Your task to perform on an android device: turn off location history Image 0: 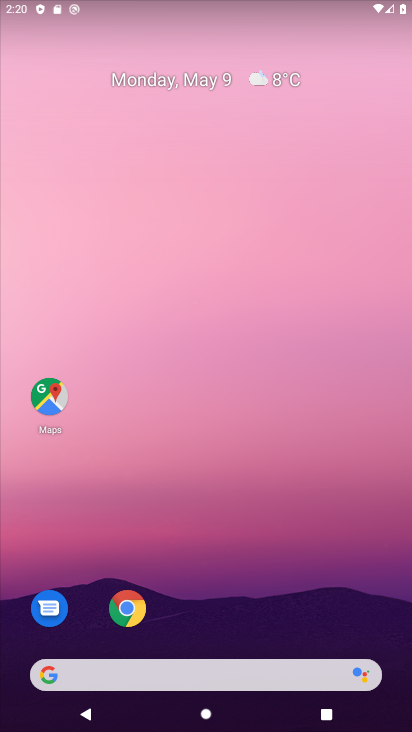
Step 0: drag from (185, 622) to (208, 158)
Your task to perform on an android device: turn off location history Image 1: 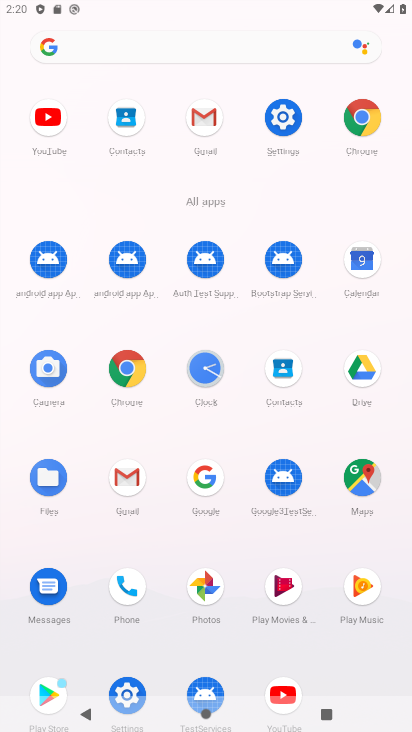
Step 1: click (278, 125)
Your task to perform on an android device: turn off location history Image 2: 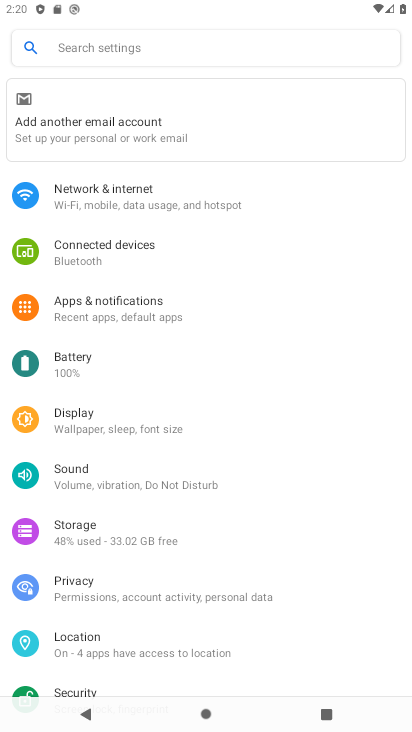
Step 2: click (167, 650)
Your task to perform on an android device: turn off location history Image 3: 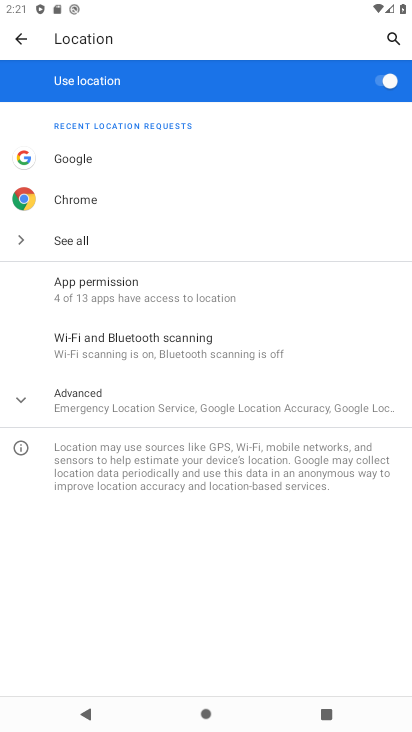
Step 3: click (30, 399)
Your task to perform on an android device: turn off location history Image 4: 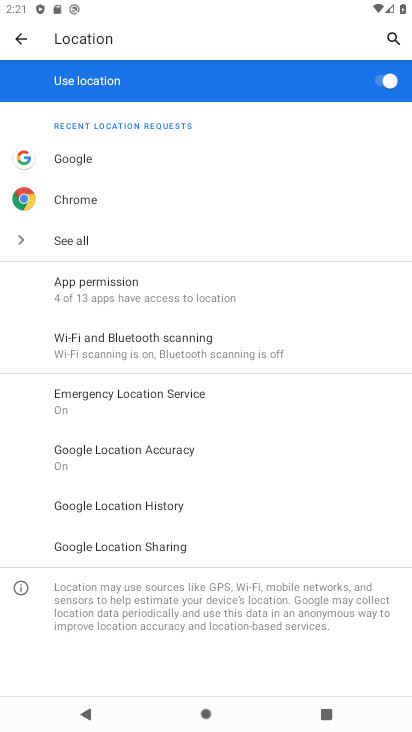
Step 4: click (92, 509)
Your task to perform on an android device: turn off location history Image 5: 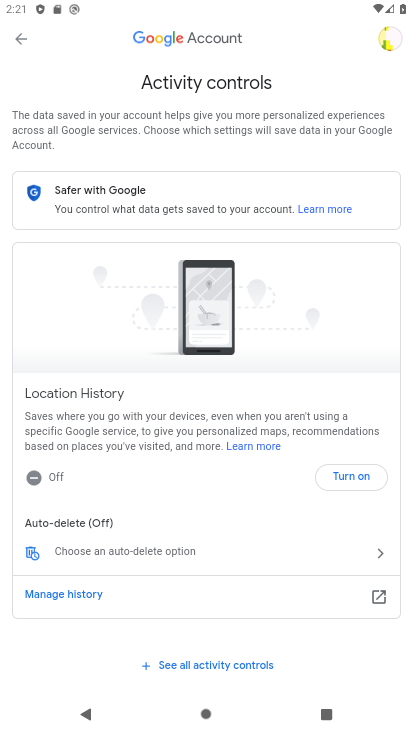
Step 5: task complete